Your task to perform on an android device: Search for a new grill on Home Depot Image 0: 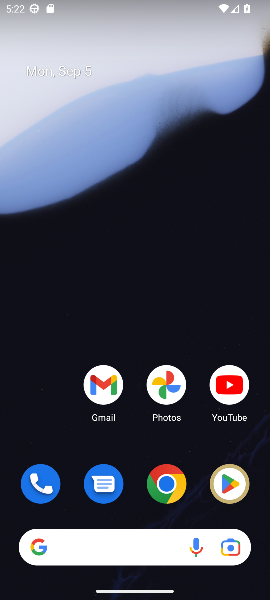
Step 0: click (172, 488)
Your task to perform on an android device: Search for a new grill on Home Depot Image 1: 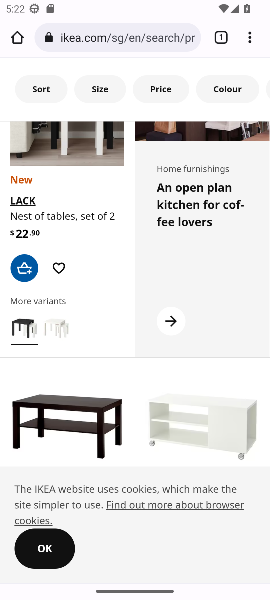
Step 1: click (159, 39)
Your task to perform on an android device: Search for a new grill on Home Depot Image 2: 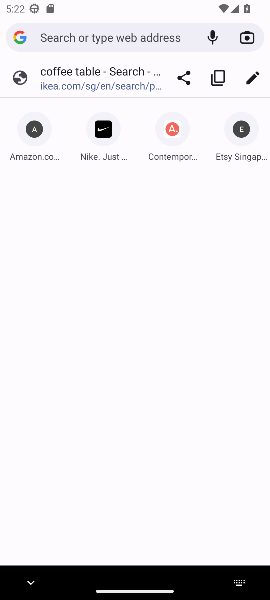
Step 2: type "Home Depot"
Your task to perform on an android device: Search for a new grill on Home Depot Image 3: 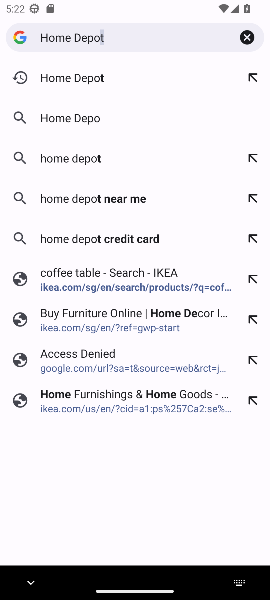
Step 3: press enter
Your task to perform on an android device: Search for a new grill on Home Depot Image 4: 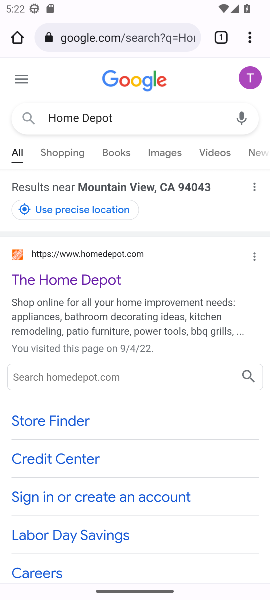
Step 4: click (88, 274)
Your task to perform on an android device: Search for a new grill on Home Depot Image 5: 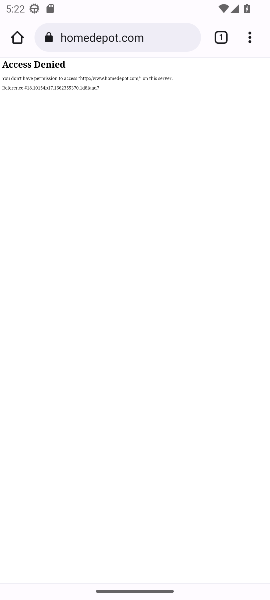
Step 5: task complete